Your task to perform on an android device: turn on data saver in the chrome app Image 0: 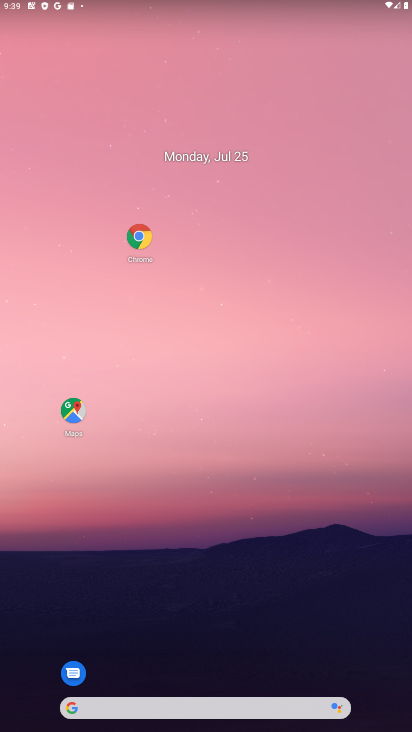
Step 0: click (130, 256)
Your task to perform on an android device: turn on data saver in the chrome app Image 1: 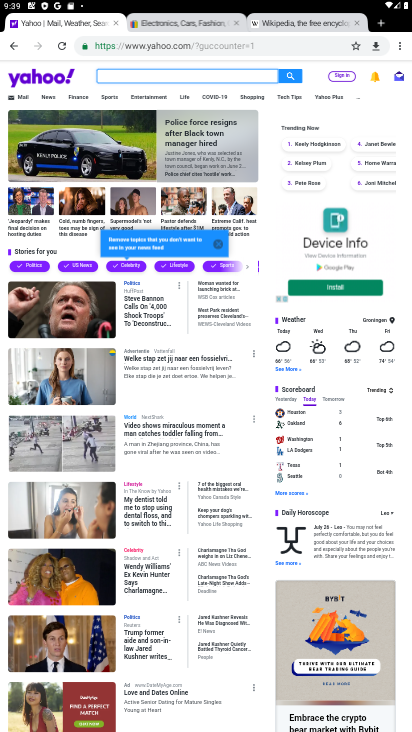
Step 1: click (399, 44)
Your task to perform on an android device: turn on data saver in the chrome app Image 2: 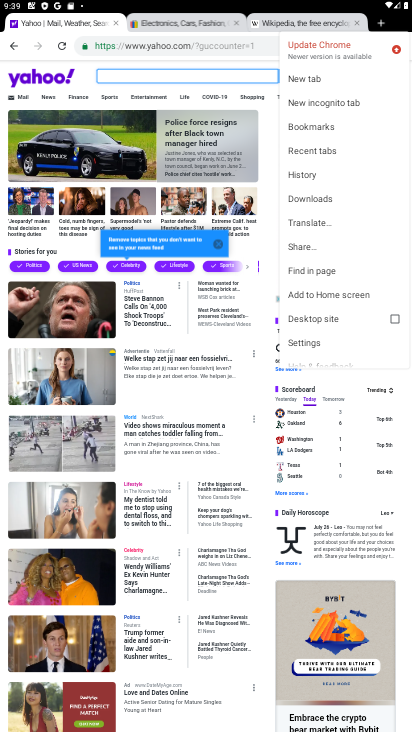
Step 2: click (320, 337)
Your task to perform on an android device: turn on data saver in the chrome app Image 3: 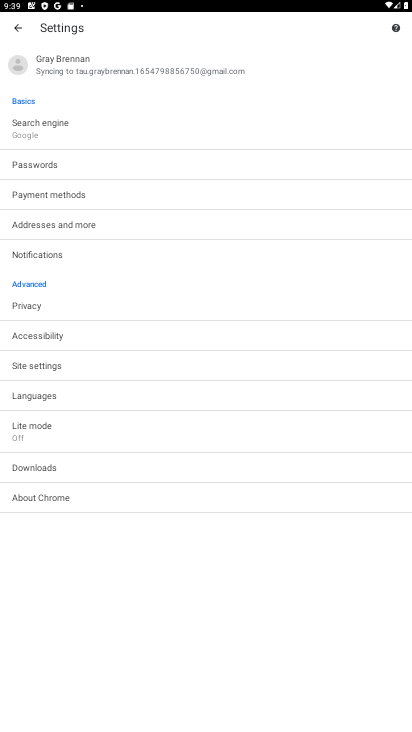
Step 3: task complete